Your task to perform on an android device: Open network settings Image 0: 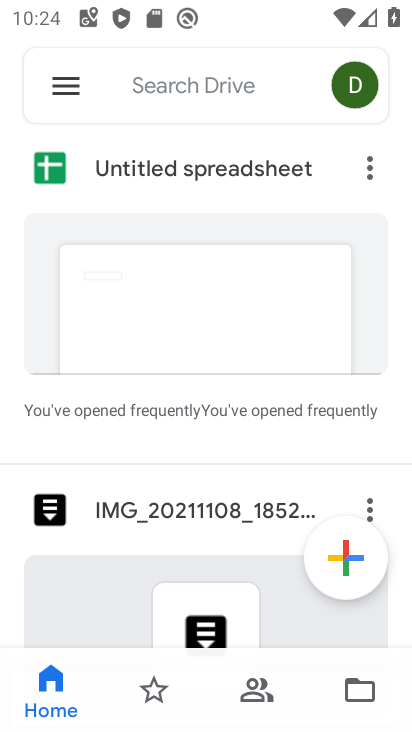
Step 0: press home button
Your task to perform on an android device: Open network settings Image 1: 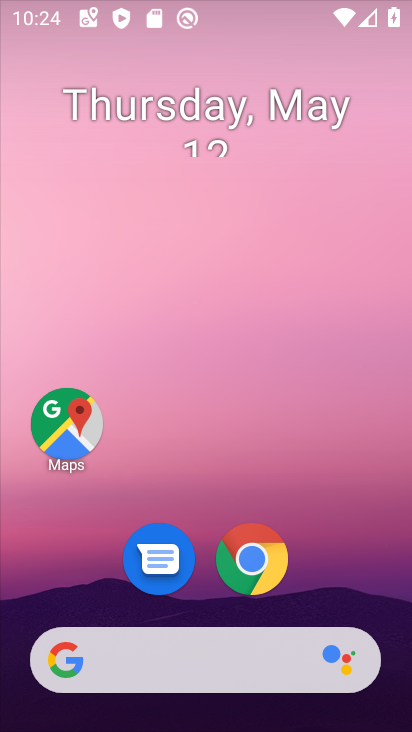
Step 1: drag from (211, 589) to (280, 159)
Your task to perform on an android device: Open network settings Image 2: 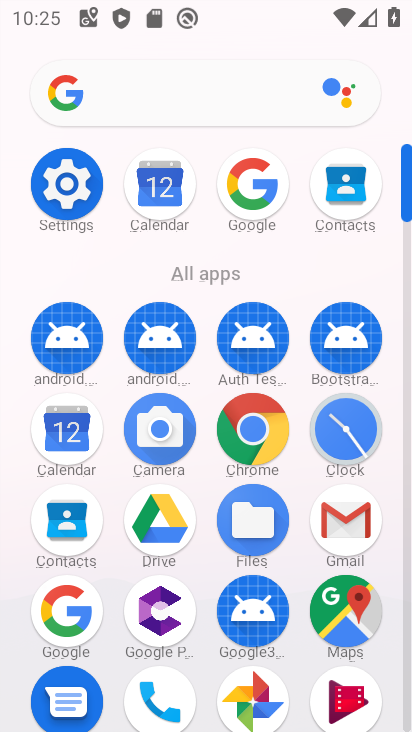
Step 2: click (98, 186)
Your task to perform on an android device: Open network settings Image 3: 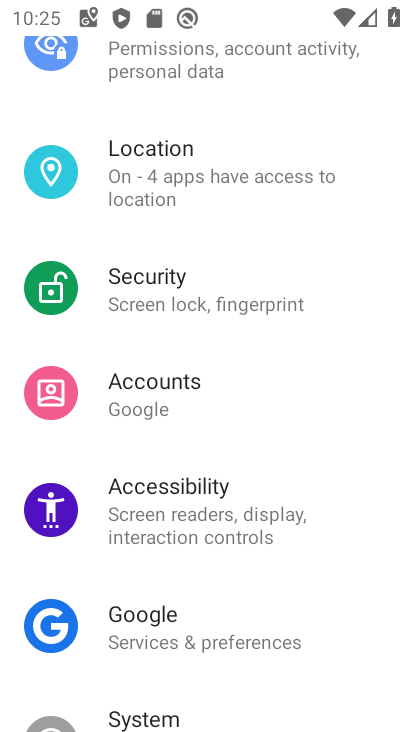
Step 3: drag from (211, 158) to (235, 533)
Your task to perform on an android device: Open network settings Image 4: 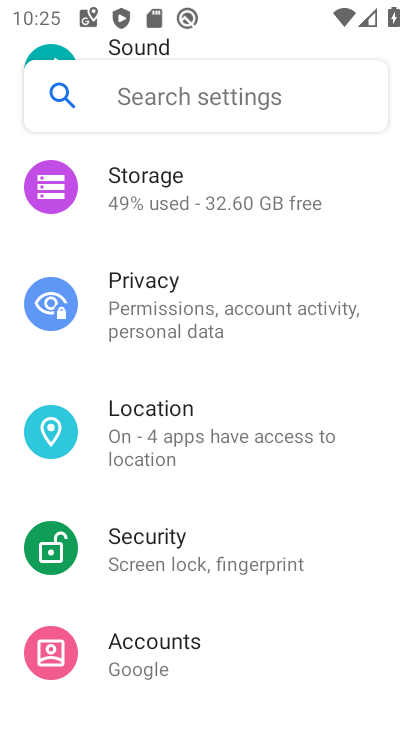
Step 4: drag from (242, 156) to (261, 535)
Your task to perform on an android device: Open network settings Image 5: 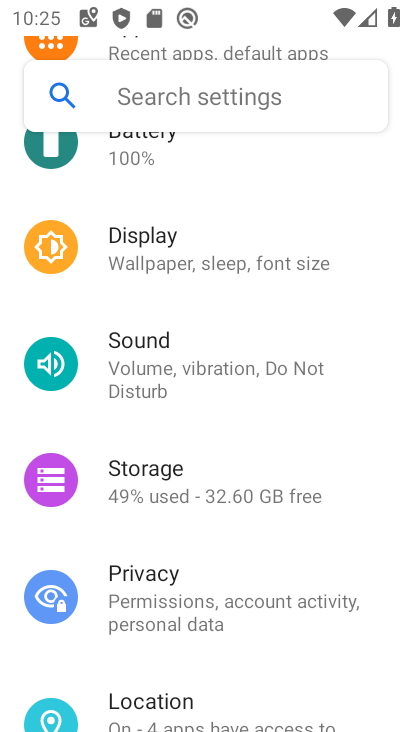
Step 5: drag from (246, 239) to (254, 573)
Your task to perform on an android device: Open network settings Image 6: 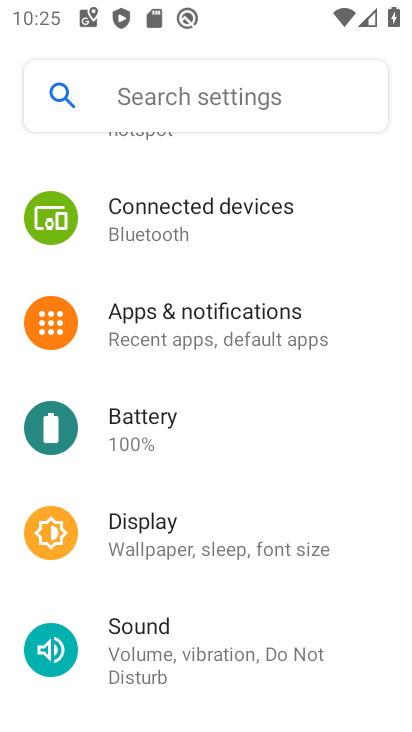
Step 6: drag from (195, 229) to (231, 562)
Your task to perform on an android device: Open network settings Image 7: 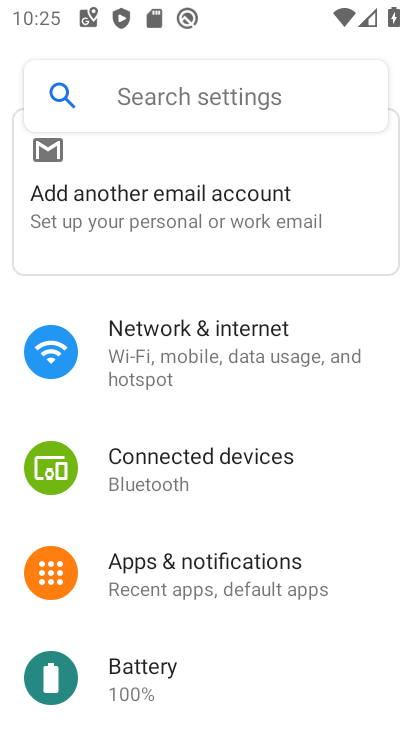
Step 7: click (224, 369)
Your task to perform on an android device: Open network settings Image 8: 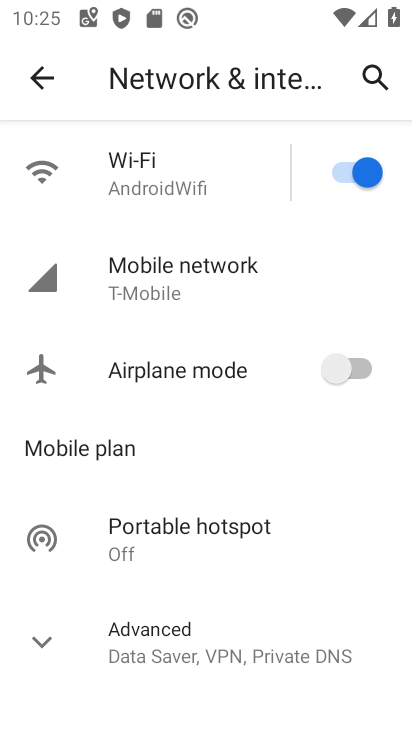
Step 8: task complete